Your task to perform on an android device: Go to sound settings Image 0: 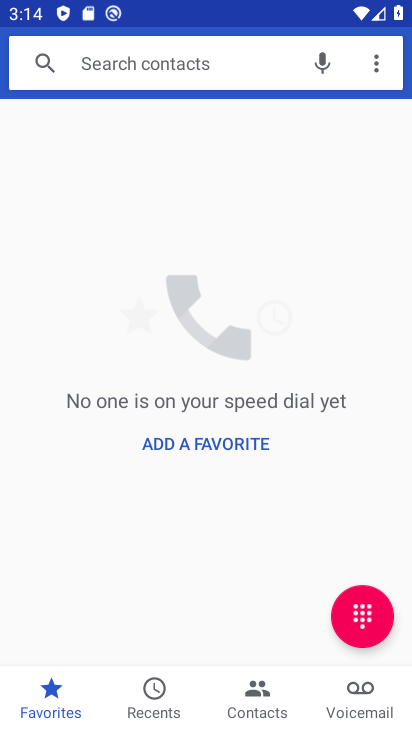
Step 0: press home button
Your task to perform on an android device: Go to sound settings Image 1: 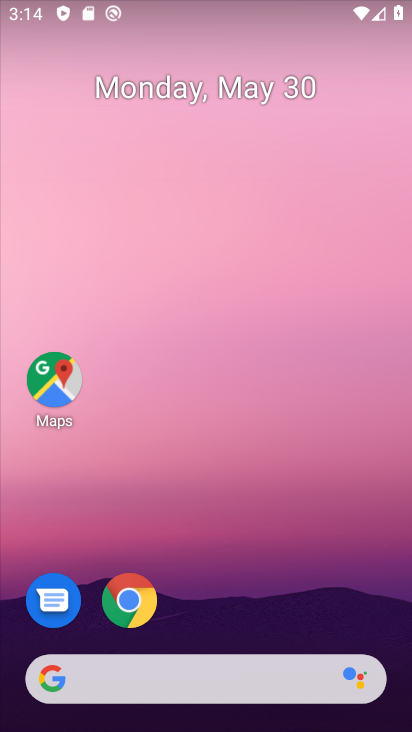
Step 1: drag from (276, 614) to (236, 208)
Your task to perform on an android device: Go to sound settings Image 2: 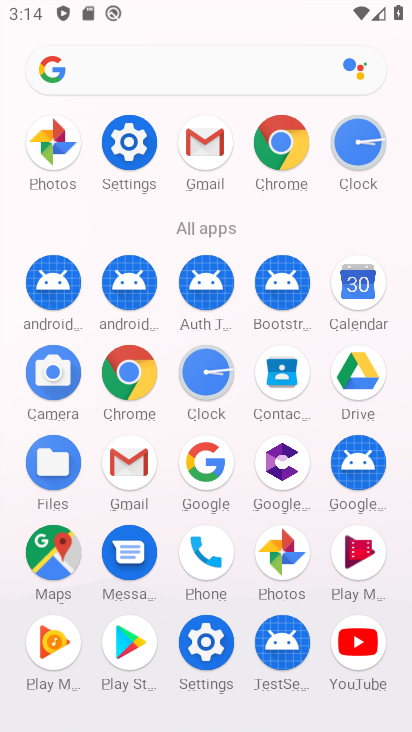
Step 2: click (132, 153)
Your task to perform on an android device: Go to sound settings Image 3: 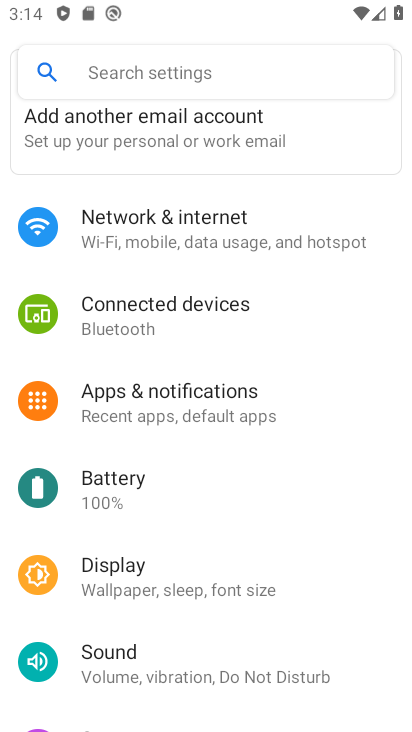
Step 3: click (217, 665)
Your task to perform on an android device: Go to sound settings Image 4: 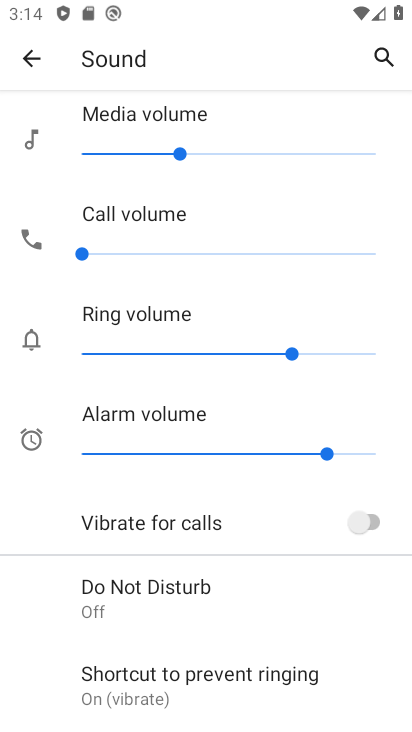
Step 4: task complete